Your task to perform on an android device: all mails in gmail Image 0: 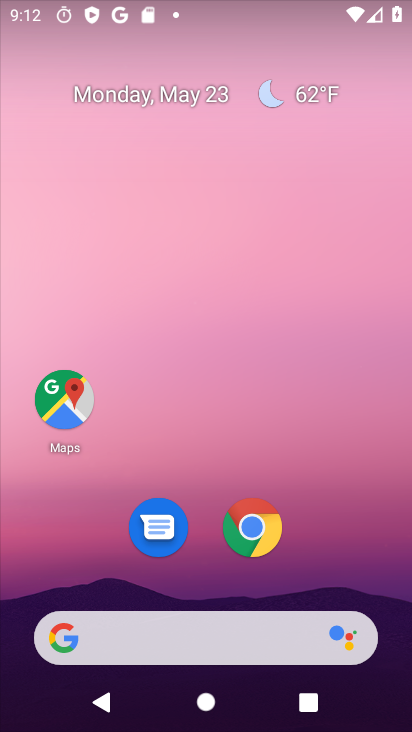
Step 0: drag from (369, 529) to (342, 92)
Your task to perform on an android device: all mails in gmail Image 1: 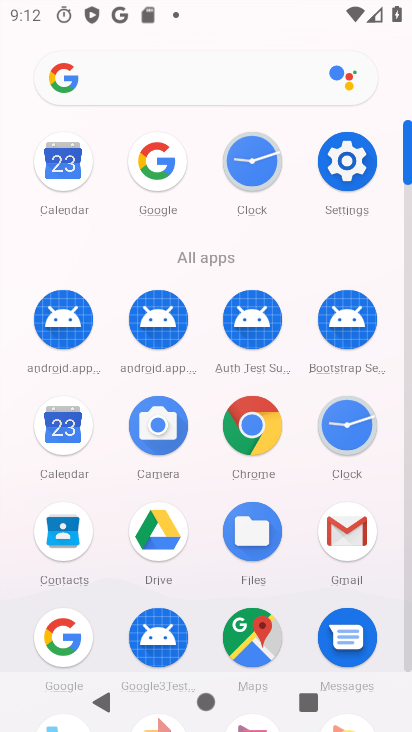
Step 1: click (365, 535)
Your task to perform on an android device: all mails in gmail Image 2: 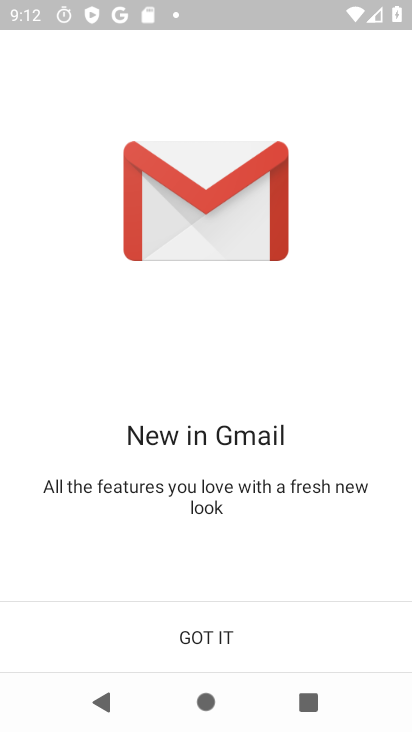
Step 2: click (209, 650)
Your task to perform on an android device: all mails in gmail Image 3: 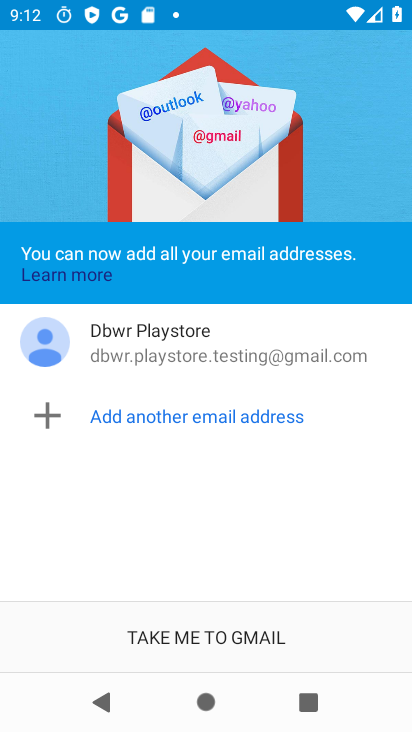
Step 3: click (230, 618)
Your task to perform on an android device: all mails in gmail Image 4: 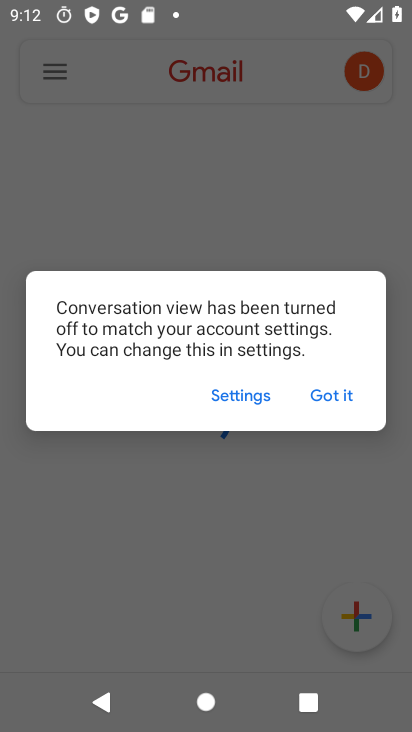
Step 4: click (306, 394)
Your task to perform on an android device: all mails in gmail Image 5: 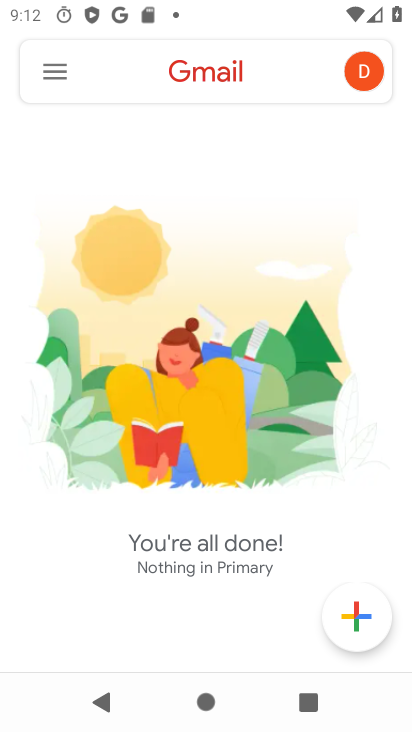
Step 5: click (46, 83)
Your task to perform on an android device: all mails in gmail Image 6: 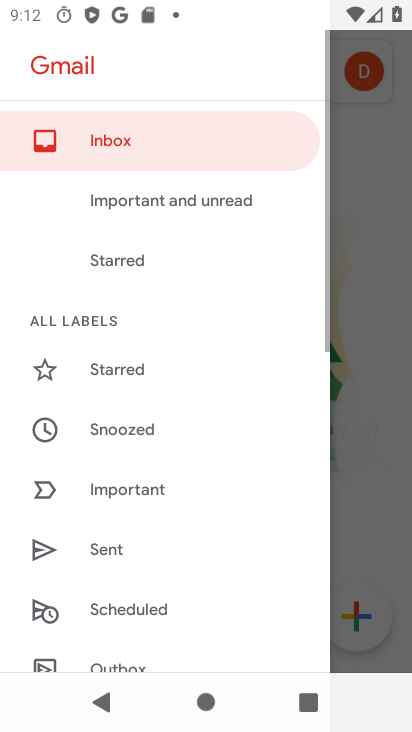
Step 6: drag from (159, 644) to (104, 227)
Your task to perform on an android device: all mails in gmail Image 7: 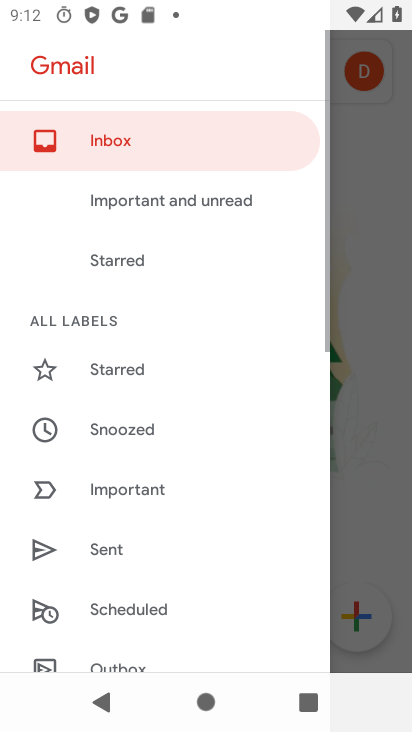
Step 7: drag from (155, 628) to (168, 315)
Your task to perform on an android device: all mails in gmail Image 8: 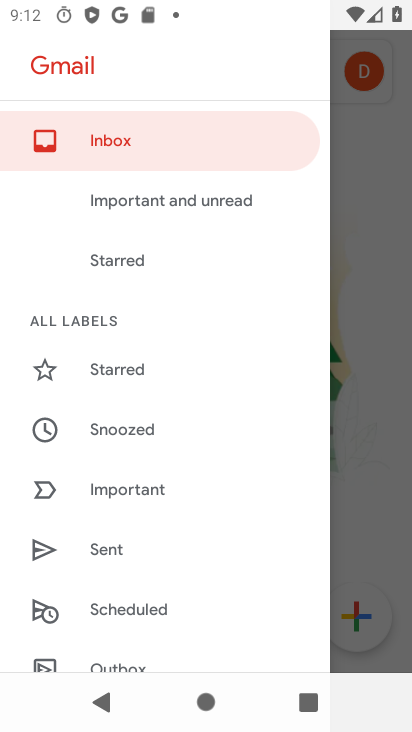
Step 8: drag from (165, 643) to (212, 406)
Your task to perform on an android device: all mails in gmail Image 9: 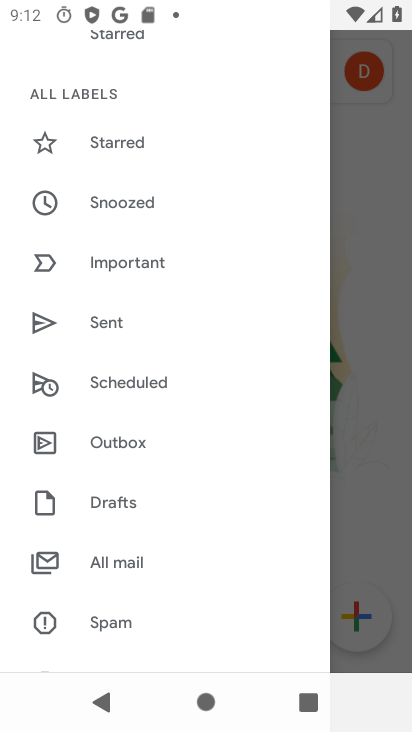
Step 9: click (137, 560)
Your task to perform on an android device: all mails in gmail Image 10: 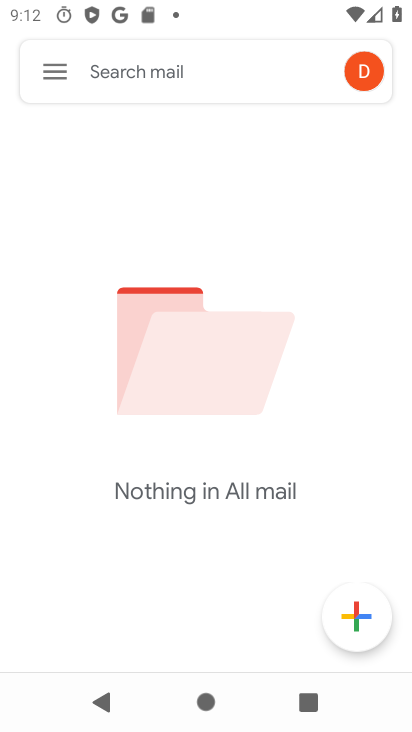
Step 10: task complete